Your task to perform on an android device: Toggle the flashlight Image 0: 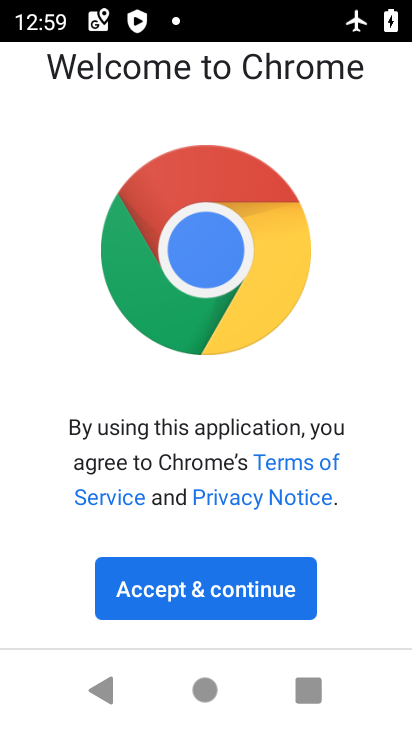
Step 0: press home button
Your task to perform on an android device: Toggle the flashlight Image 1: 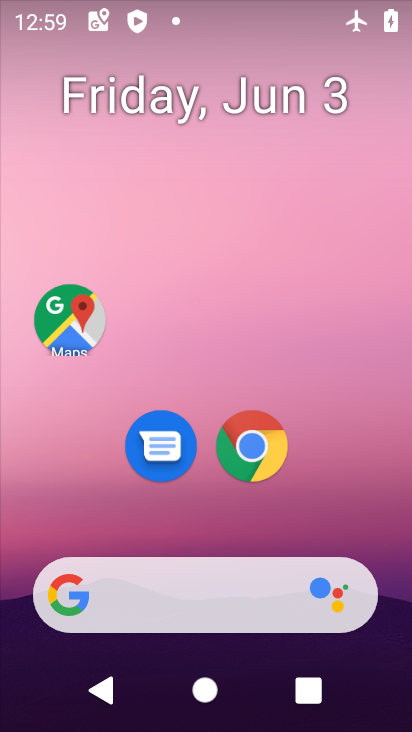
Step 1: task complete